Your task to perform on an android device: Open Chrome and go to the settings page Image 0: 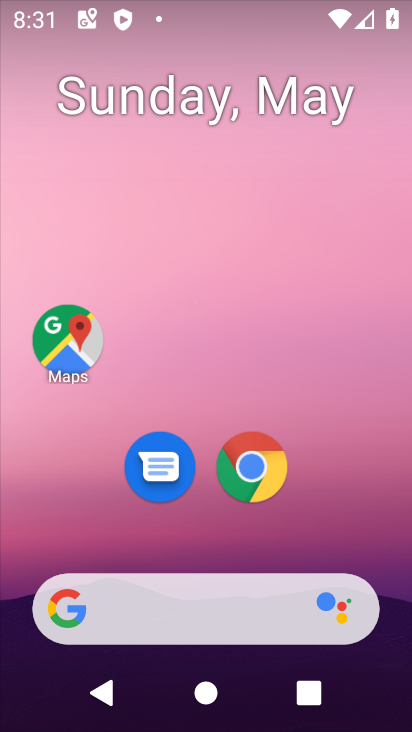
Step 0: click (255, 465)
Your task to perform on an android device: Open Chrome and go to the settings page Image 1: 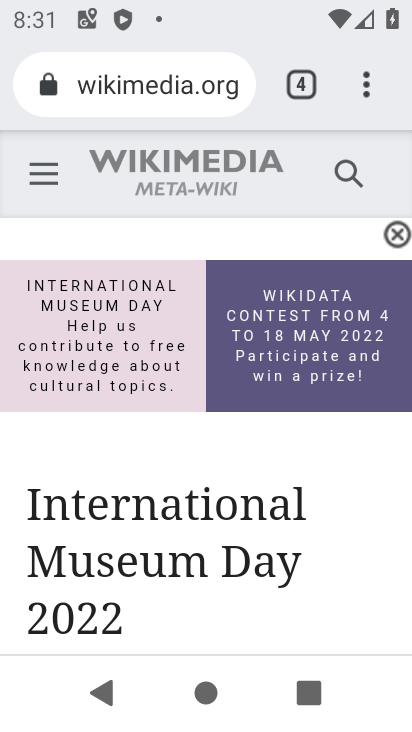
Step 1: click (376, 72)
Your task to perform on an android device: Open Chrome and go to the settings page Image 2: 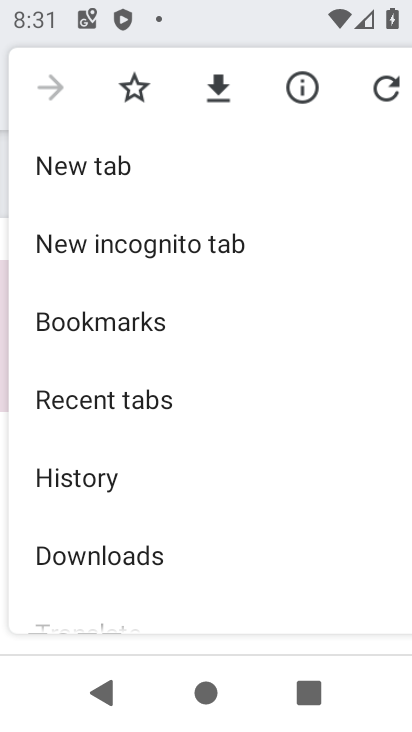
Step 2: drag from (58, 590) to (158, 137)
Your task to perform on an android device: Open Chrome and go to the settings page Image 3: 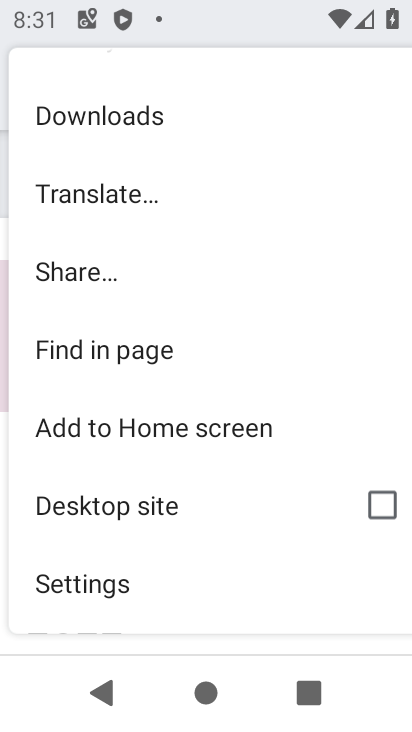
Step 3: click (67, 574)
Your task to perform on an android device: Open Chrome and go to the settings page Image 4: 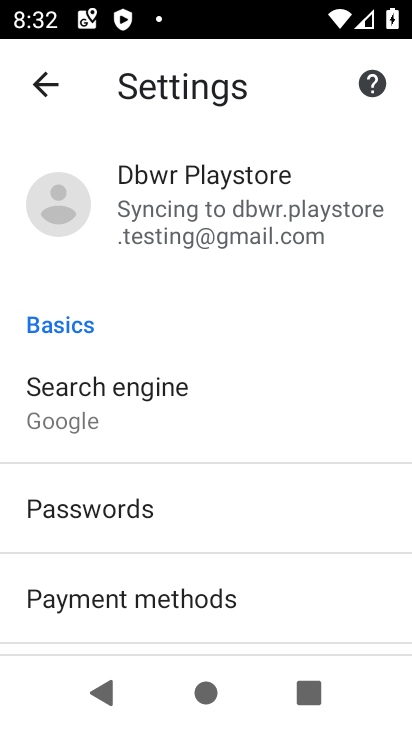
Step 4: task complete